Your task to perform on an android device: toggle javascript in the chrome app Image 0: 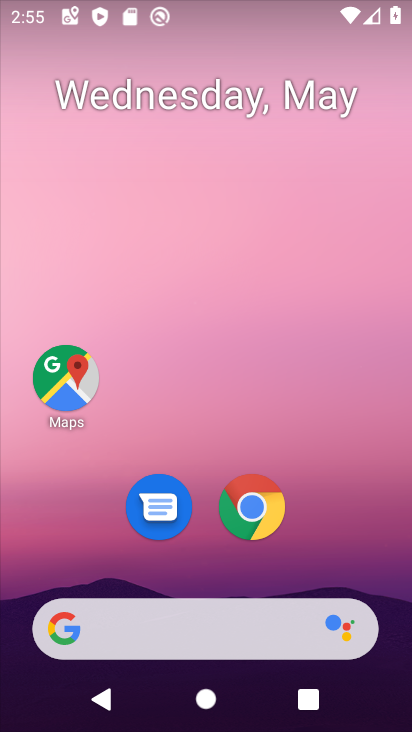
Step 0: click (259, 511)
Your task to perform on an android device: toggle javascript in the chrome app Image 1: 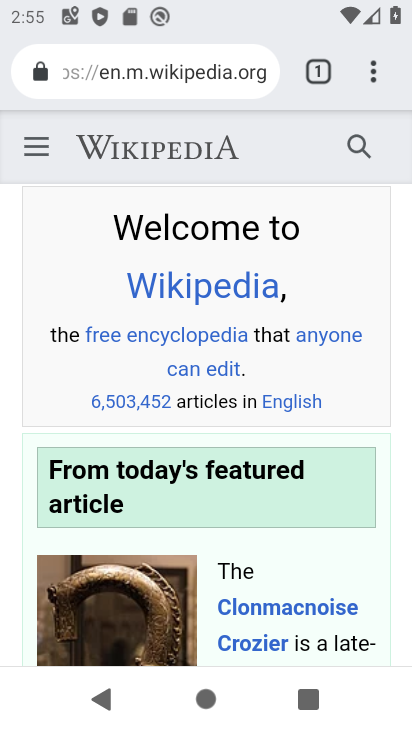
Step 1: click (364, 75)
Your task to perform on an android device: toggle javascript in the chrome app Image 2: 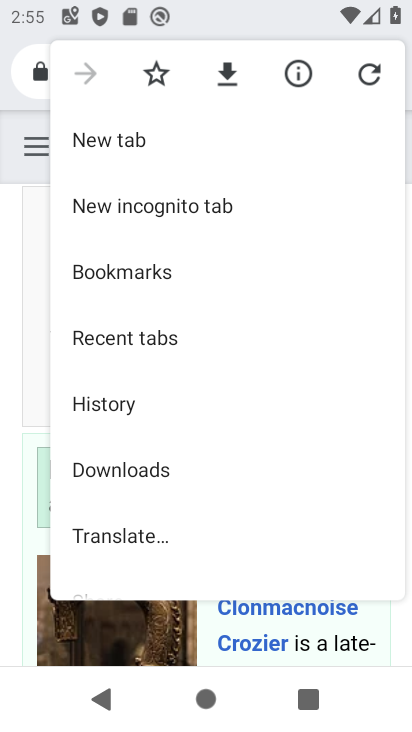
Step 2: drag from (233, 493) to (255, 217)
Your task to perform on an android device: toggle javascript in the chrome app Image 3: 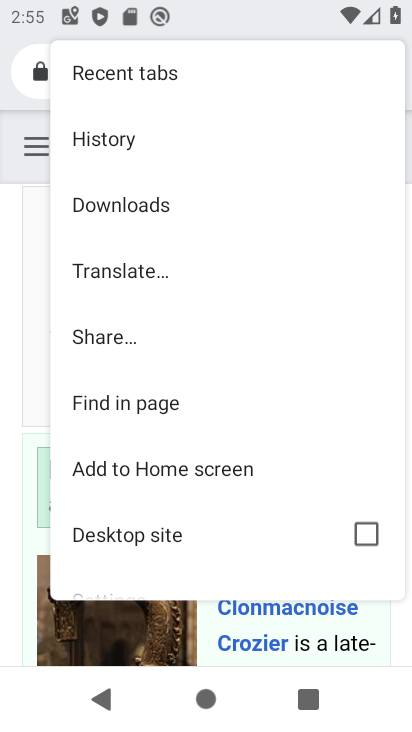
Step 3: drag from (163, 501) to (190, 292)
Your task to perform on an android device: toggle javascript in the chrome app Image 4: 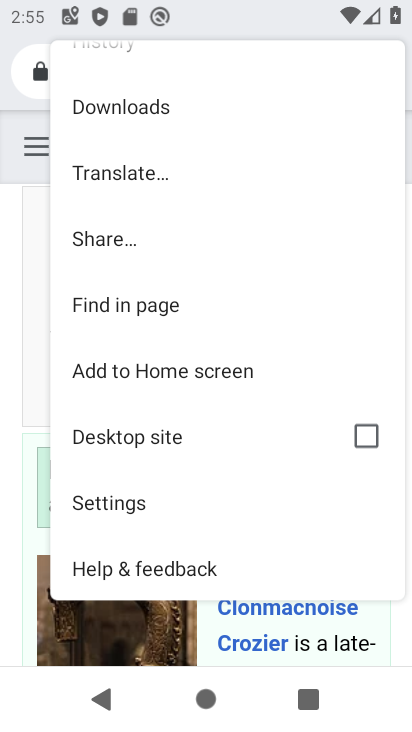
Step 4: click (93, 506)
Your task to perform on an android device: toggle javascript in the chrome app Image 5: 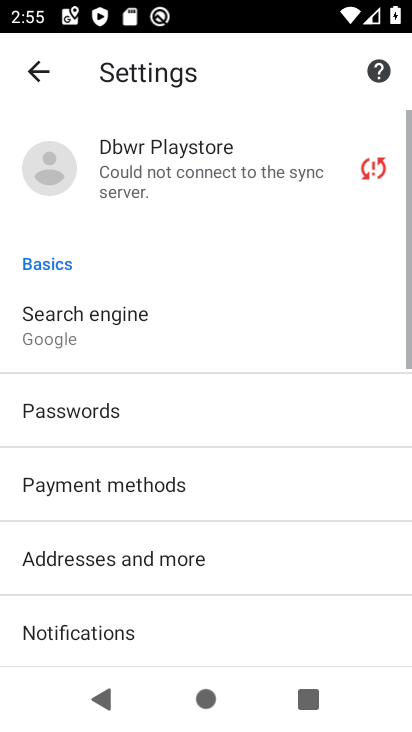
Step 5: drag from (234, 527) to (272, 210)
Your task to perform on an android device: toggle javascript in the chrome app Image 6: 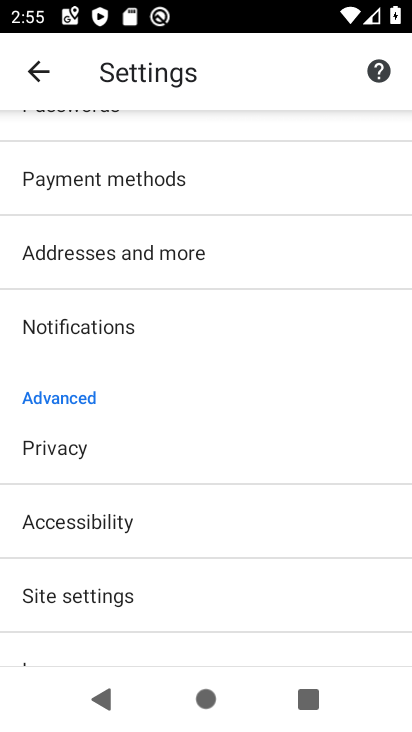
Step 6: click (137, 591)
Your task to perform on an android device: toggle javascript in the chrome app Image 7: 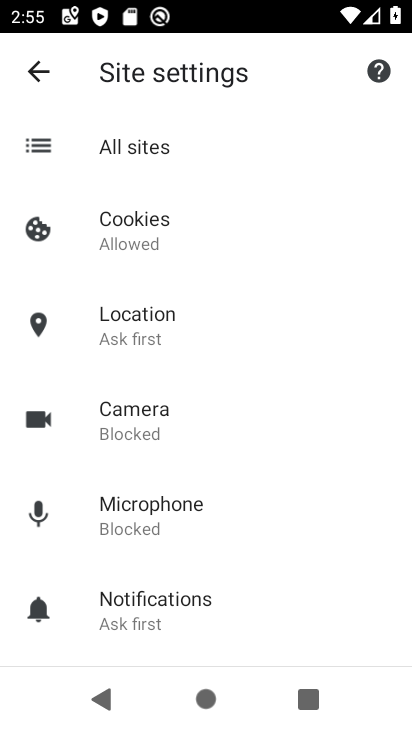
Step 7: drag from (165, 613) to (204, 355)
Your task to perform on an android device: toggle javascript in the chrome app Image 8: 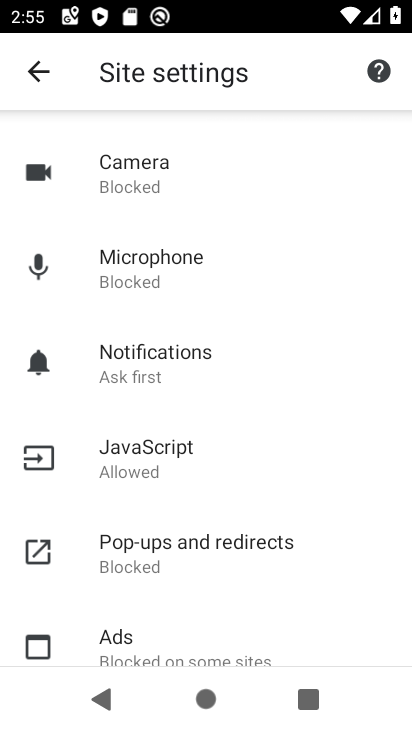
Step 8: click (78, 478)
Your task to perform on an android device: toggle javascript in the chrome app Image 9: 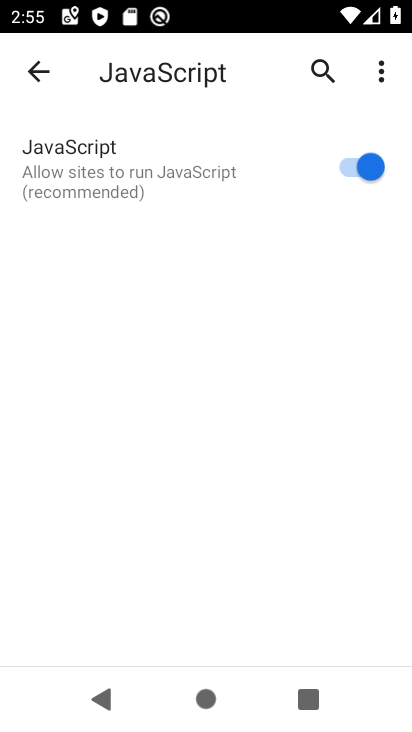
Step 9: click (357, 158)
Your task to perform on an android device: toggle javascript in the chrome app Image 10: 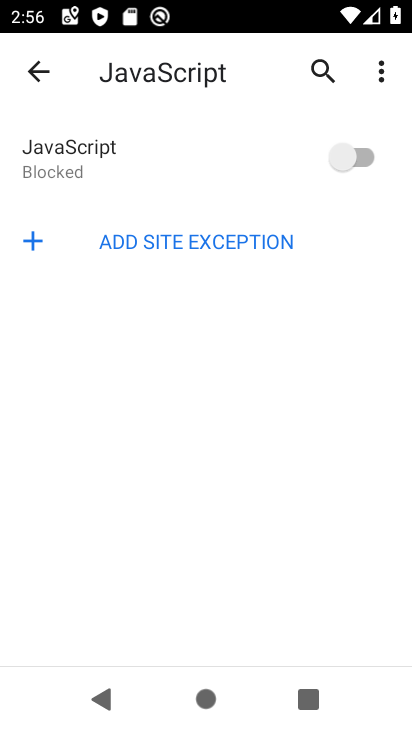
Step 10: task complete